Your task to perform on an android device: Show me popular games on the Play Store Image 0: 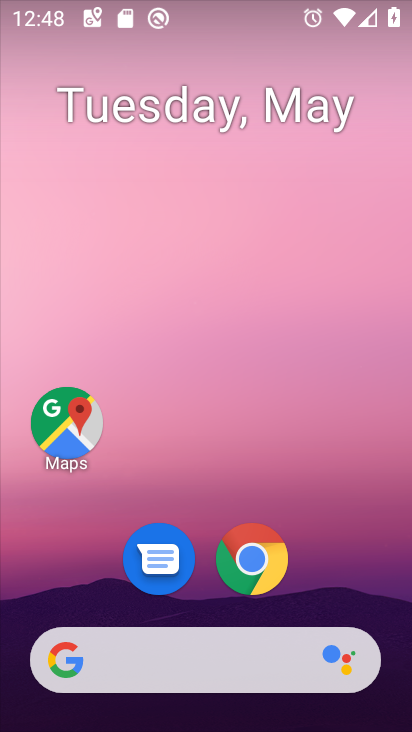
Step 0: drag from (353, 618) to (291, 61)
Your task to perform on an android device: Show me popular games on the Play Store Image 1: 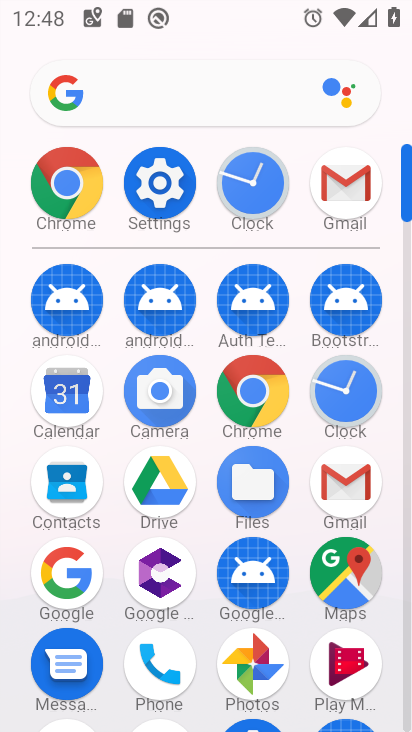
Step 1: click (407, 700)
Your task to perform on an android device: Show me popular games on the Play Store Image 2: 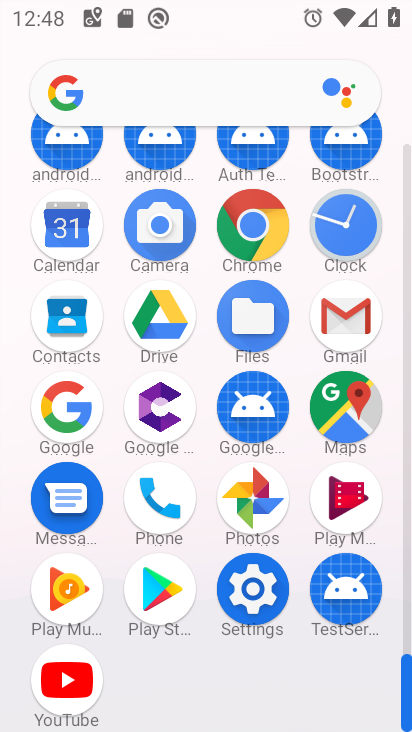
Step 2: click (172, 610)
Your task to perform on an android device: Show me popular games on the Play Store Image 3: 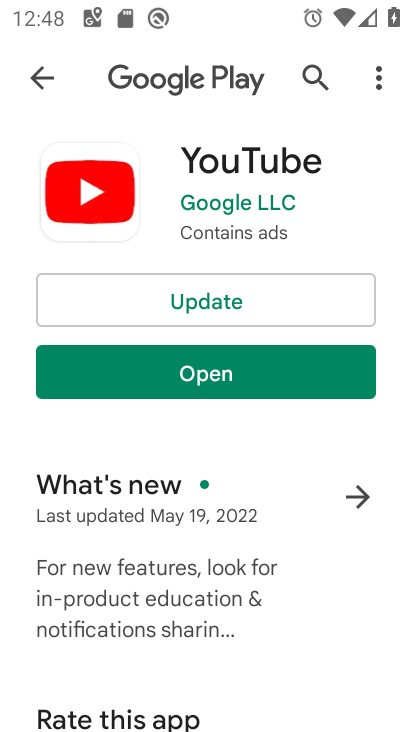
Step 3: click (45, 72)
Your task to perform on an android device: Show me popular games on the Play Store Image 4: 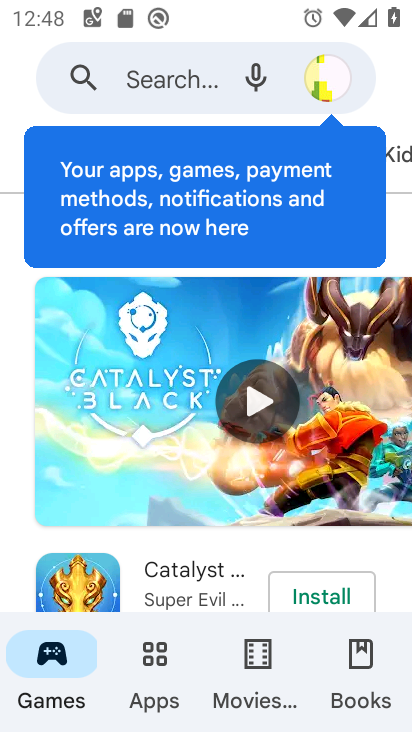
Step 4: drag from (258, 577) to (236, 86)
Your task to perform on an android device: Show me popular games on the Play Store Image 5: 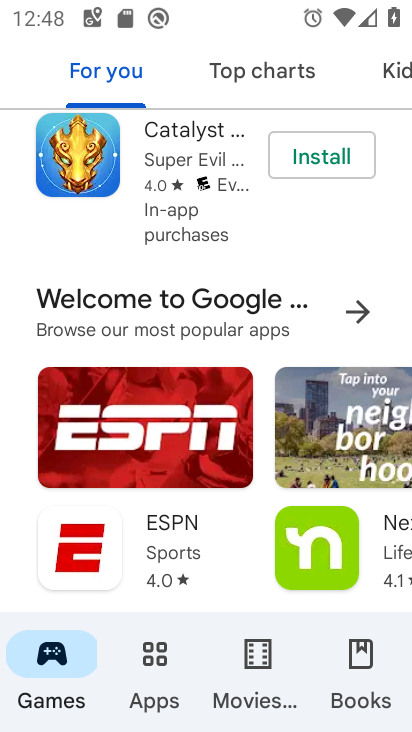
Step 5: drag from (264, 569) to (231, 150)
Your task to perform on an android device: Show me popular games on the Play Store Image 6: 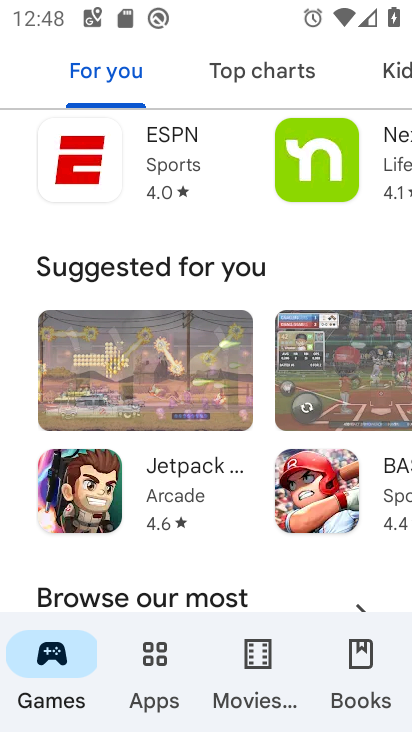
Step 6: drag from (270, 584) to (247, 166)
Your task to perform on an android device: Show me popular games on the Play Store Image 7: 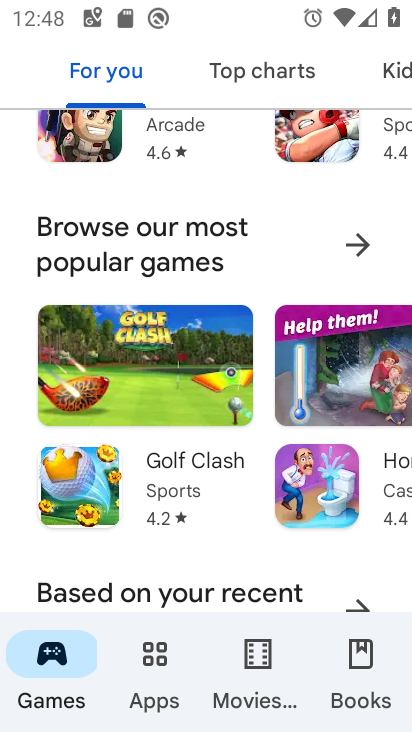
Step 7: click (258, 238)
Your task to perform on an android device: Show me popular games on the Play Store Image 8: 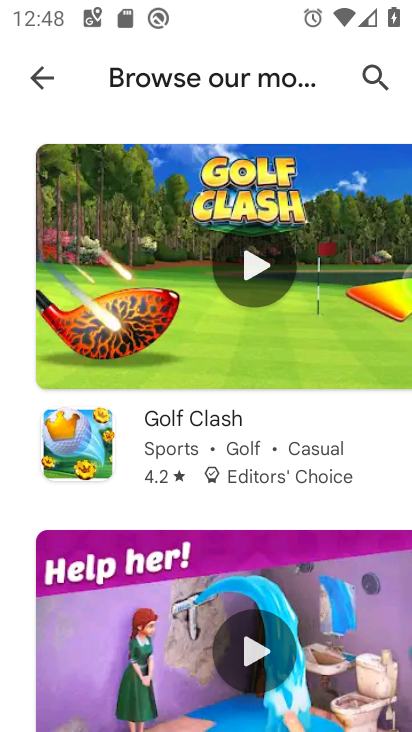
Step 8: task complete